Your task to perform on an android device: Open Chrome and go to settings Image 0: 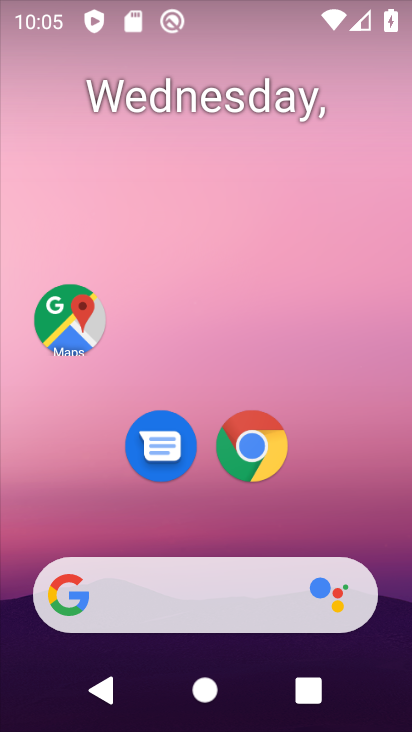
Step 0: click (242, 448)
Your task to perform on an android device: Open Chrome and go to settings Image 1: 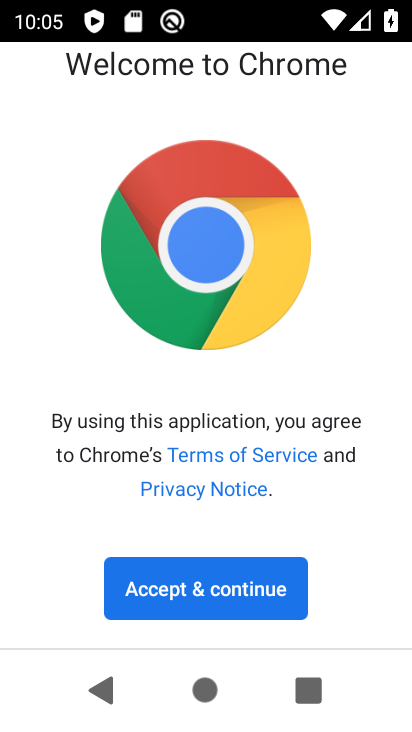
Step 1: click (179, 585)
Your task to perform on an android device: Open Chrome and go to settings Image 2: 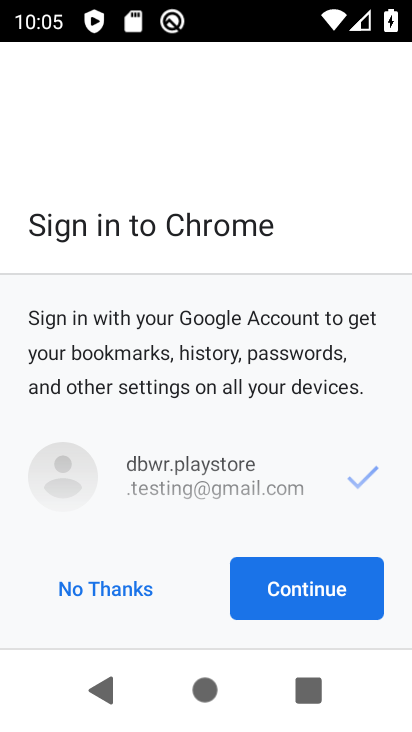
Step 2: click (377, 596)
Your task to perform on an android device: Open Chrome and go to settings Image 3: 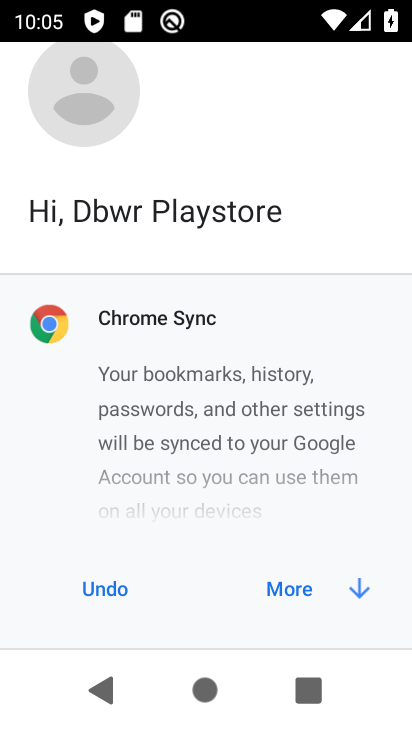
Step 3: click (282, 588)
Your task to perform on an android device: Open Chrome and go to settings Image 4: 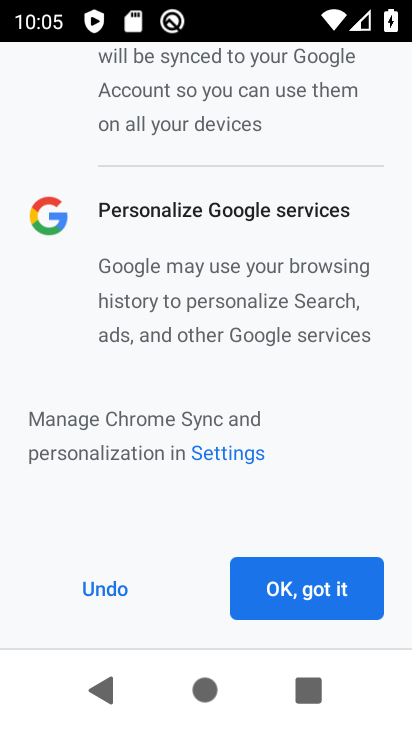
Step 4: click (281, 588)
Your task to perform on an android device: Open Chrome and go to settings Image 5: 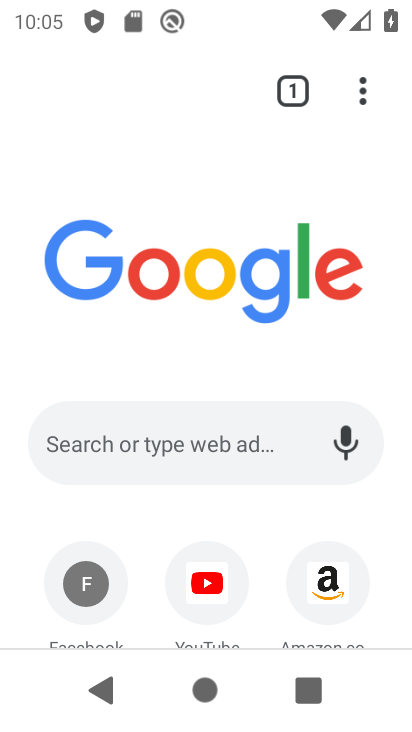
Step 5: click (362, 101)
Your task to perform on an android device: Open Chrome and go to settings Image 6: 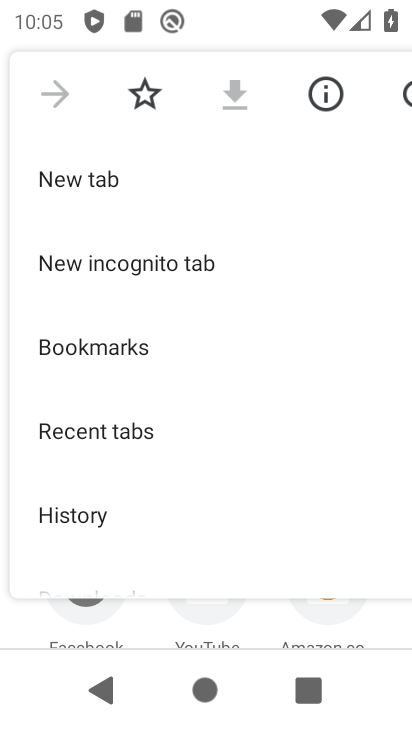
Step 6: drag from (107, 510) to (107, 206)
Your task to perform on an android device: Open Chrome and go to settings Image 7: 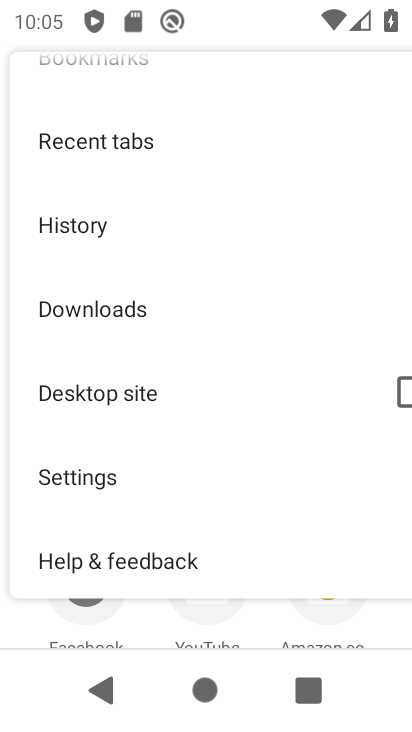
Step 7: click (85, 487)
Your task to perform on an android device: Open Chrome and go to settings Image 8: 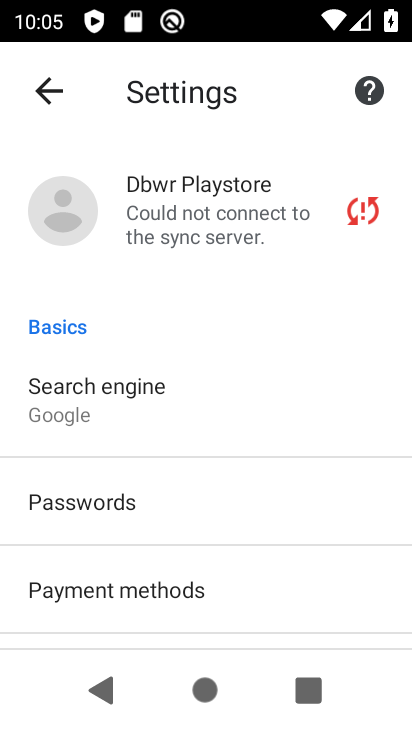
Step 8: task complete